Your task to perform on an android device: Open display settings Image 0: 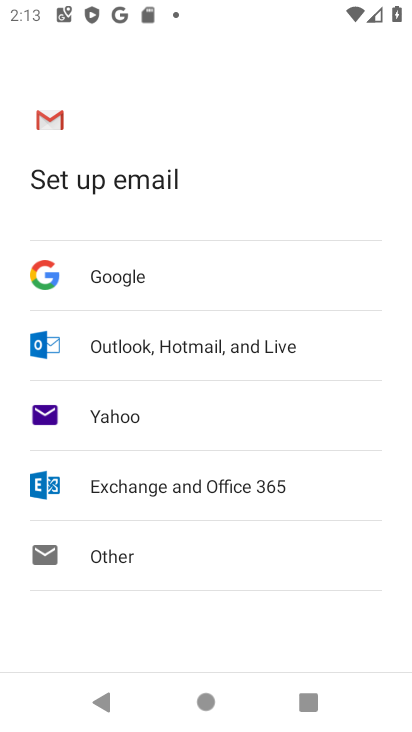
Step 0: press home button
Your task to perform on an android device: Open display settings Image 1: 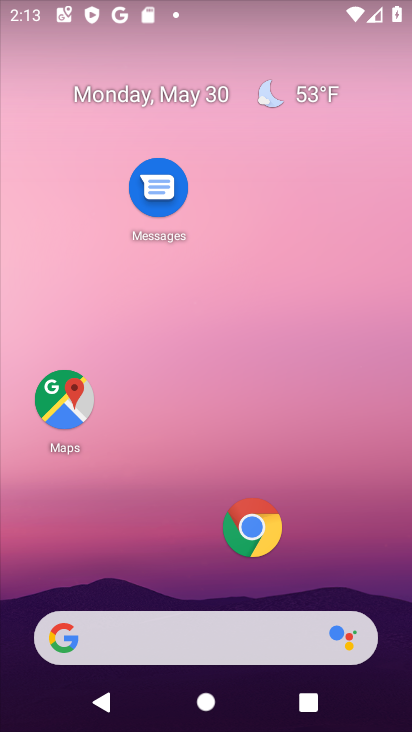
Step 1: drag from (188, 581) to (298, 113)
Your task to perform on an android device: Open display settings Image 2: 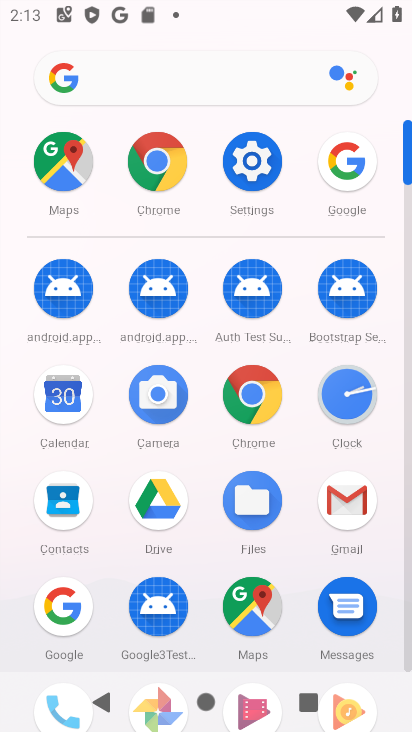
Step 2: drag from (213, 265) to (222, 60)
Your task to perform on an android device: Open display settings Image 3: 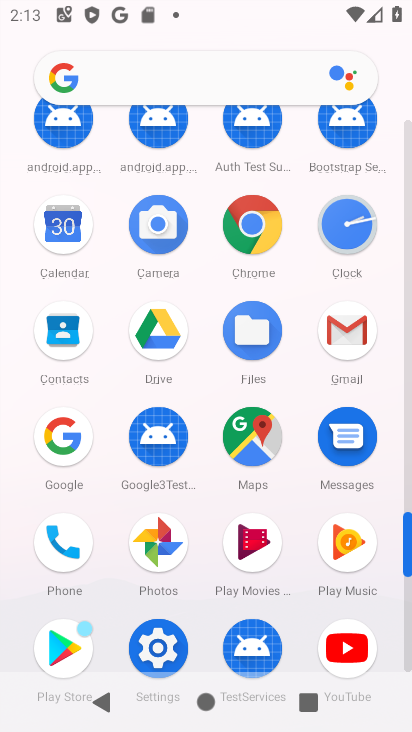
Step 3: click (158, 639)
Your task to perform on an android device: Open display settings Image 4: 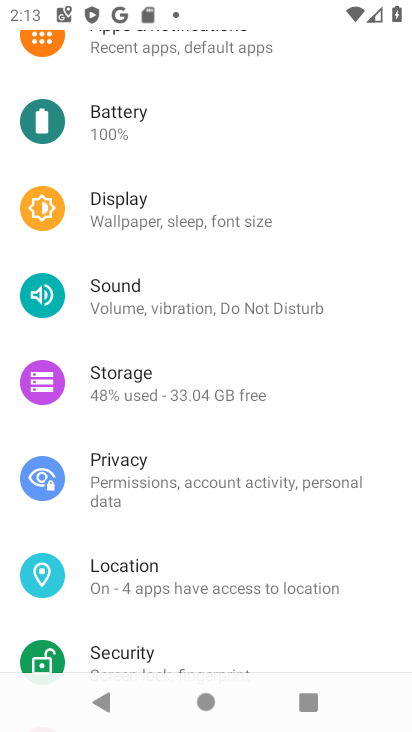
Step 4: click (156, 233)
Your task to perform on an android device: Open display settings Image 5: 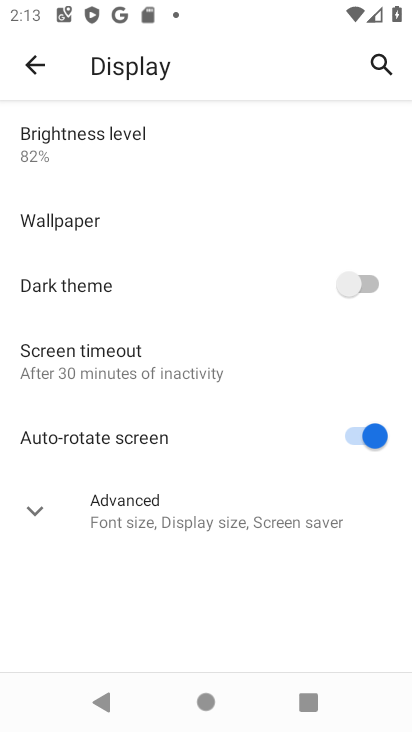
Step 5: task complete